Your task to perform on an android device: check the backup settings in the google photos Image 0: 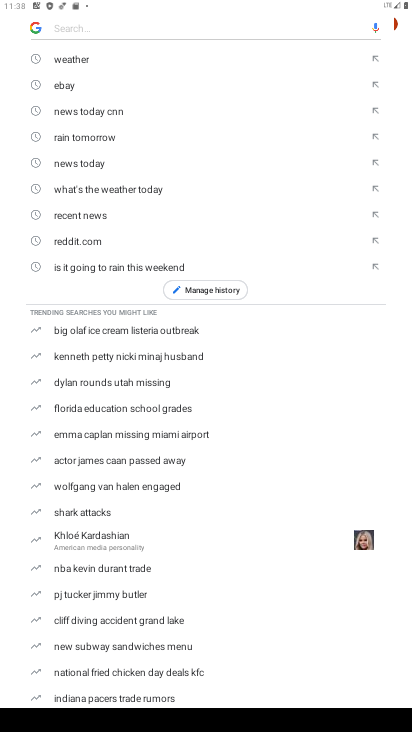
Step 0: press home button
Your task to perform on an android device: check the backup settings in the google photos Image 1: 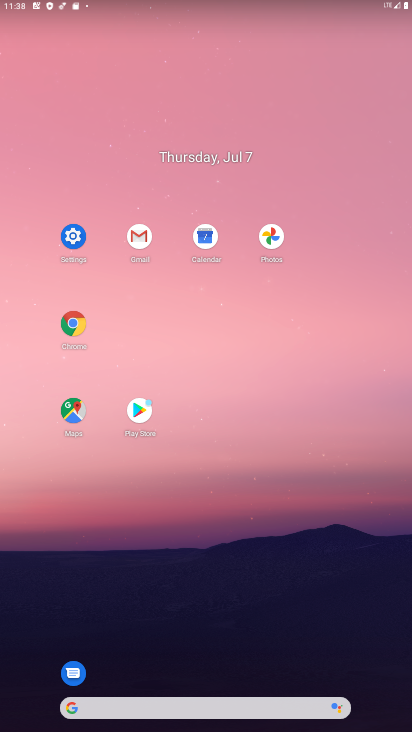
Step 1: click (273, 238)
Your task to perform on an android device: check the backup settings in the google photos Image 2: 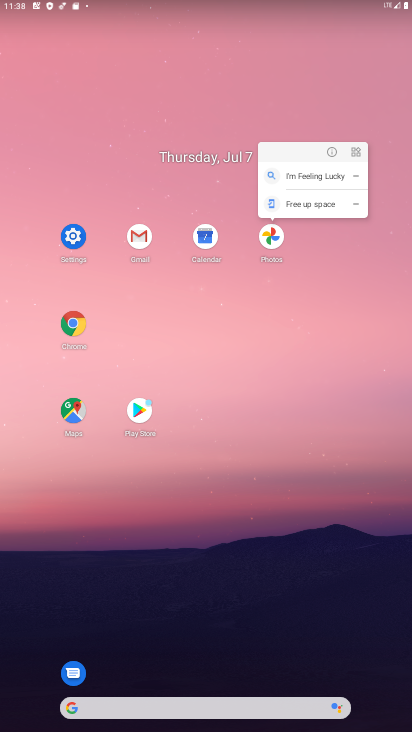
Step 2: click (273, 238)
Your task to perform on an android device: check the backup settings in the google photos Image 3: 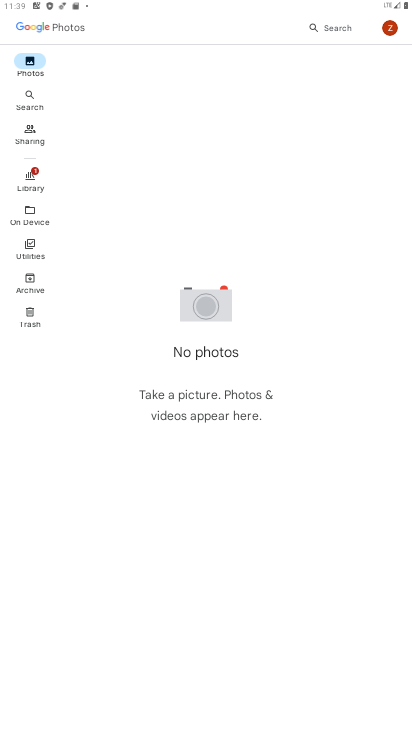
Step 3: click (386, 19)
Your task to perform on an android device: check the backup settings in the google photos Image 4: 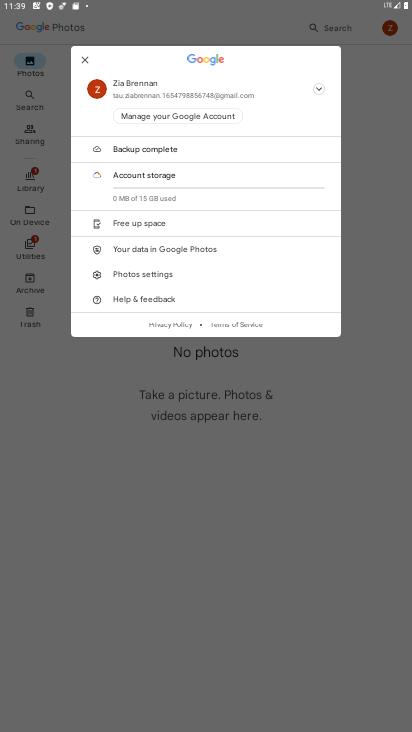
Step 4: click (180, 278)
Your task to perform on an android device: check the backup settings in the google photos Image 5: 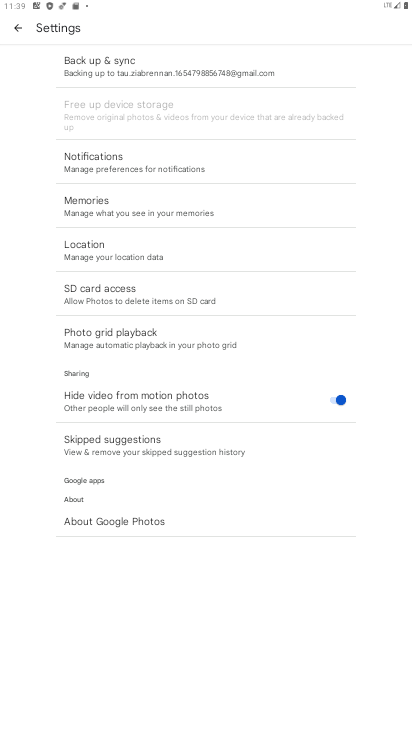
Step 5: click (187, 68)
Your task to perform on an android device: check the backup settings in the google photos Image 6: 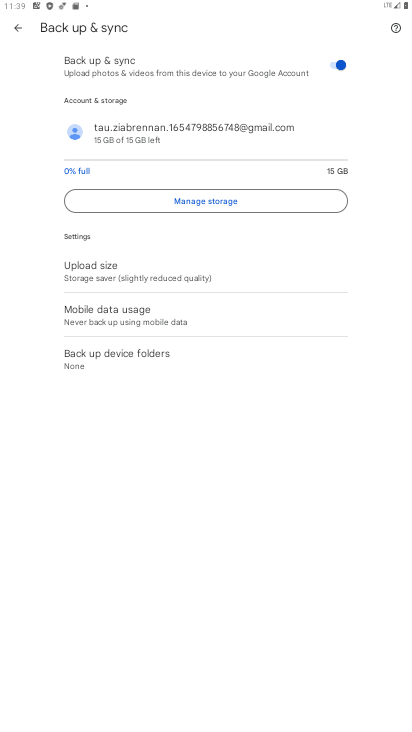
Step 6: task complete